Your task to perform on an android device: Go to sound settings Image 0: 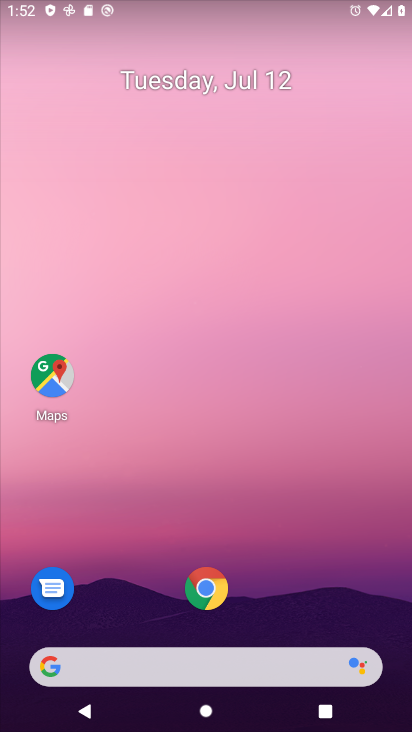
Step 0: press home button
Your task to perform on an android device: Go to sound settings Image 1: 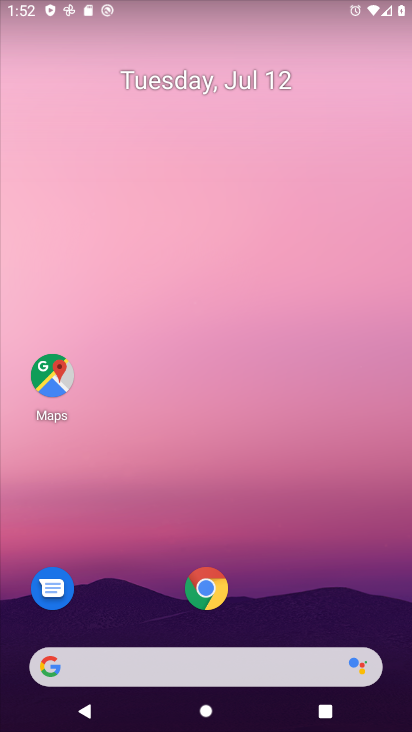
Step 1: drag from (214, 667) to (408, 29)
Your task to perform on an android device: Go to sound settings Image 2: 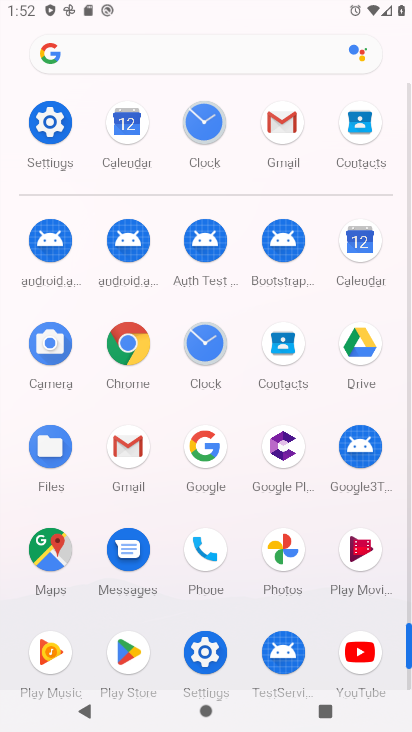
Step 2: click (60, 123)
Your task to perform on an android device: Go to sound settings Image 3: 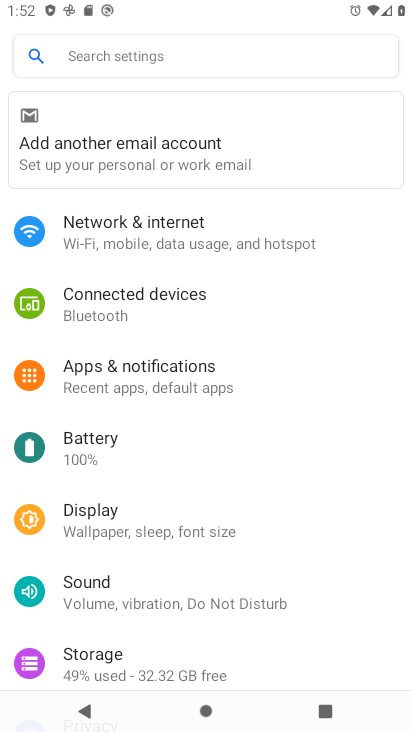
Step 3: click (107, 591)
Your task to perform on an android device: Go to sound settings Image 4: 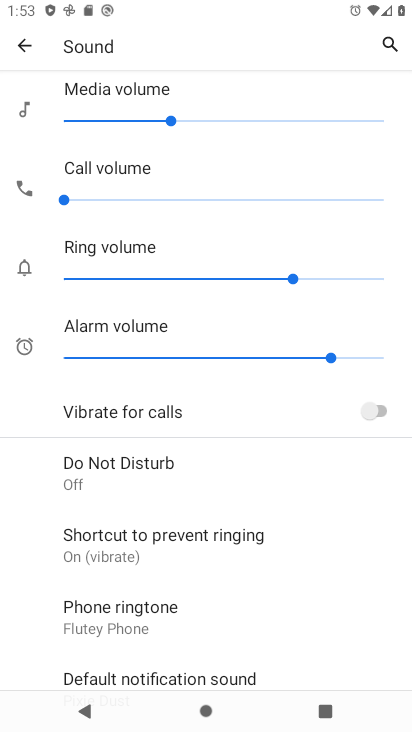
Step 4: task complete